Your task to perform on an android device: turn smart compose on in the gmail app Image 0: 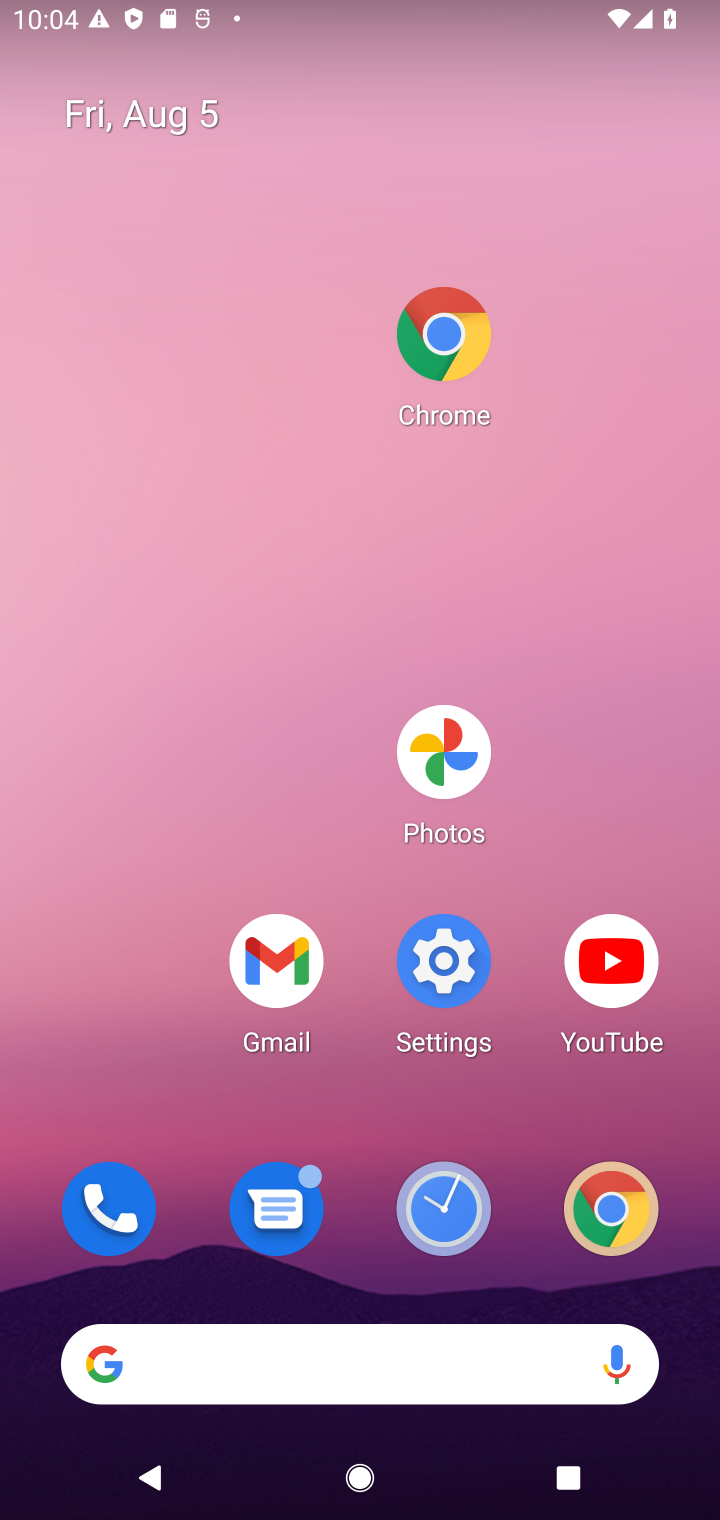
Step 0: click (453, 412)
Your task to perform on an android device: turn smart compose on in the gmail app Image 1: 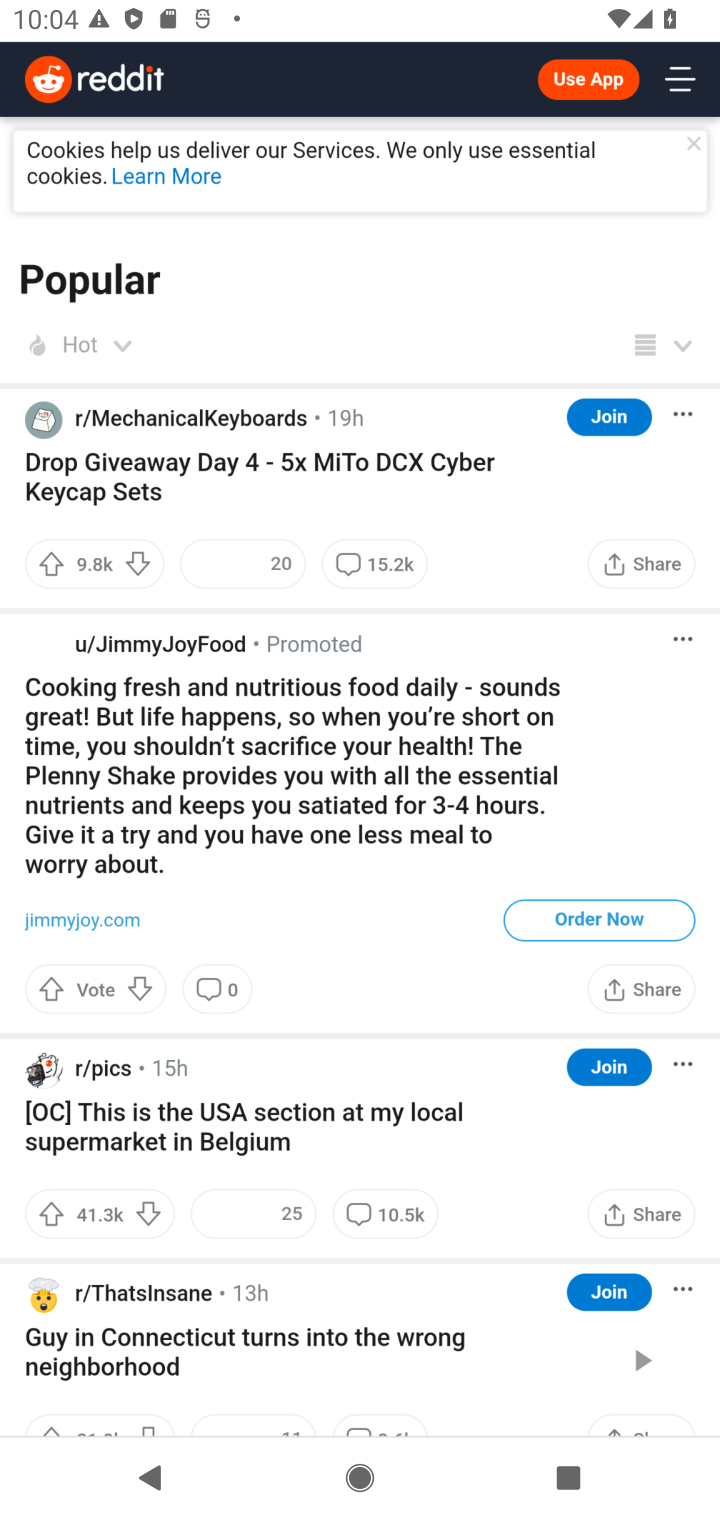
Step 1: drag from (344, 1155) to (428, 226)
Your task to perform on an android device: turn smart compose on in the gmail app Image 2: 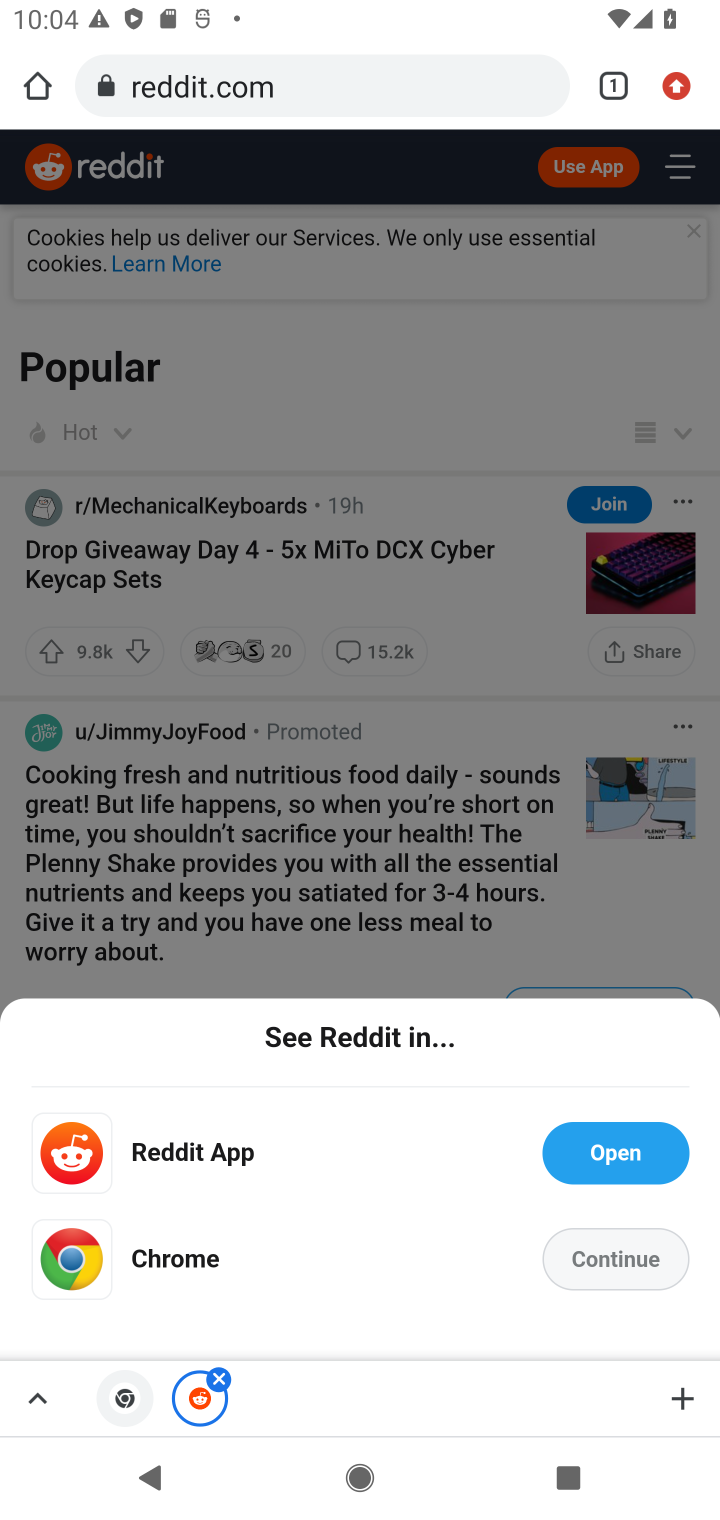
Step 2: drag from (433, 1244) to (486, 501)
Your task to perform on an android device: turn smart compose on in the gmail app Image 3: 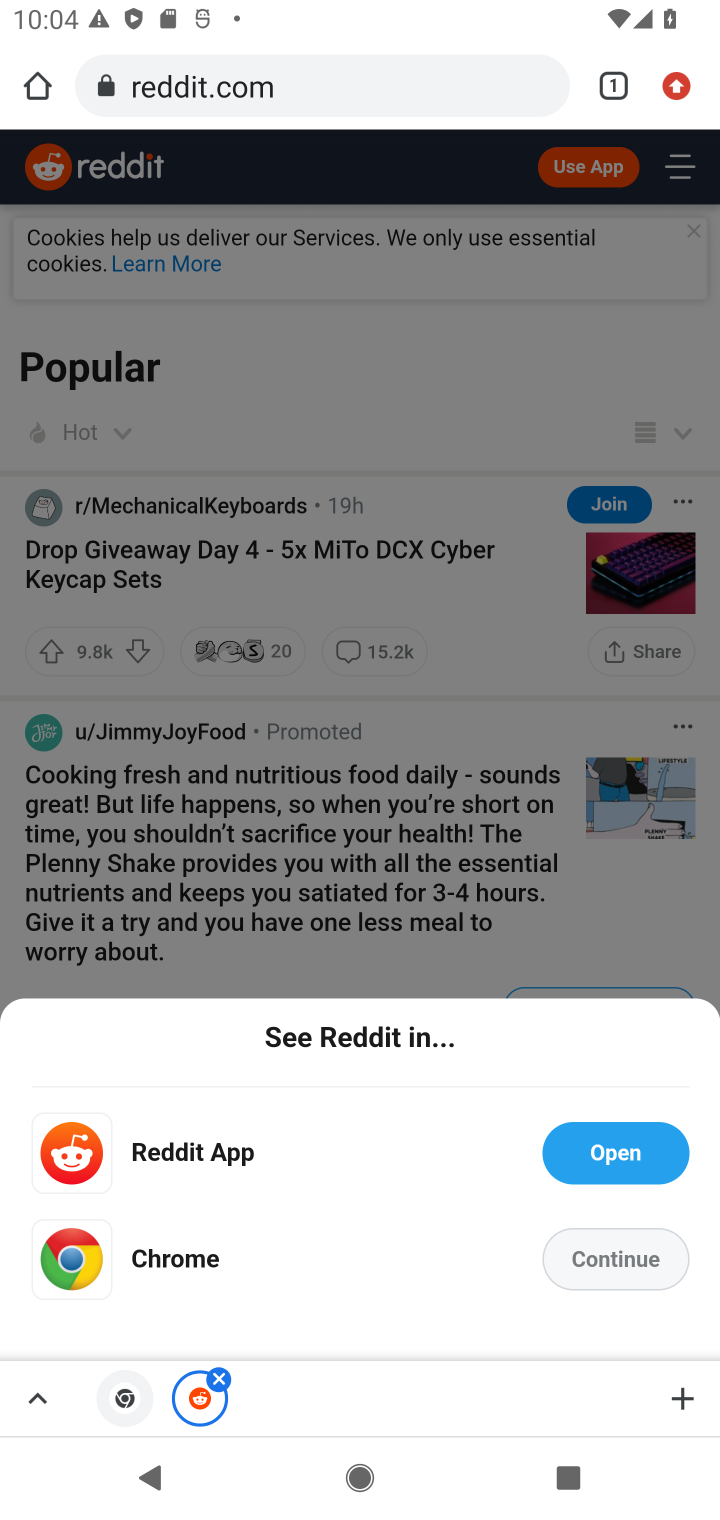
Step 3: press home button
Your task to perform on an android device: turn smart compose on in the gmail app Image 4: 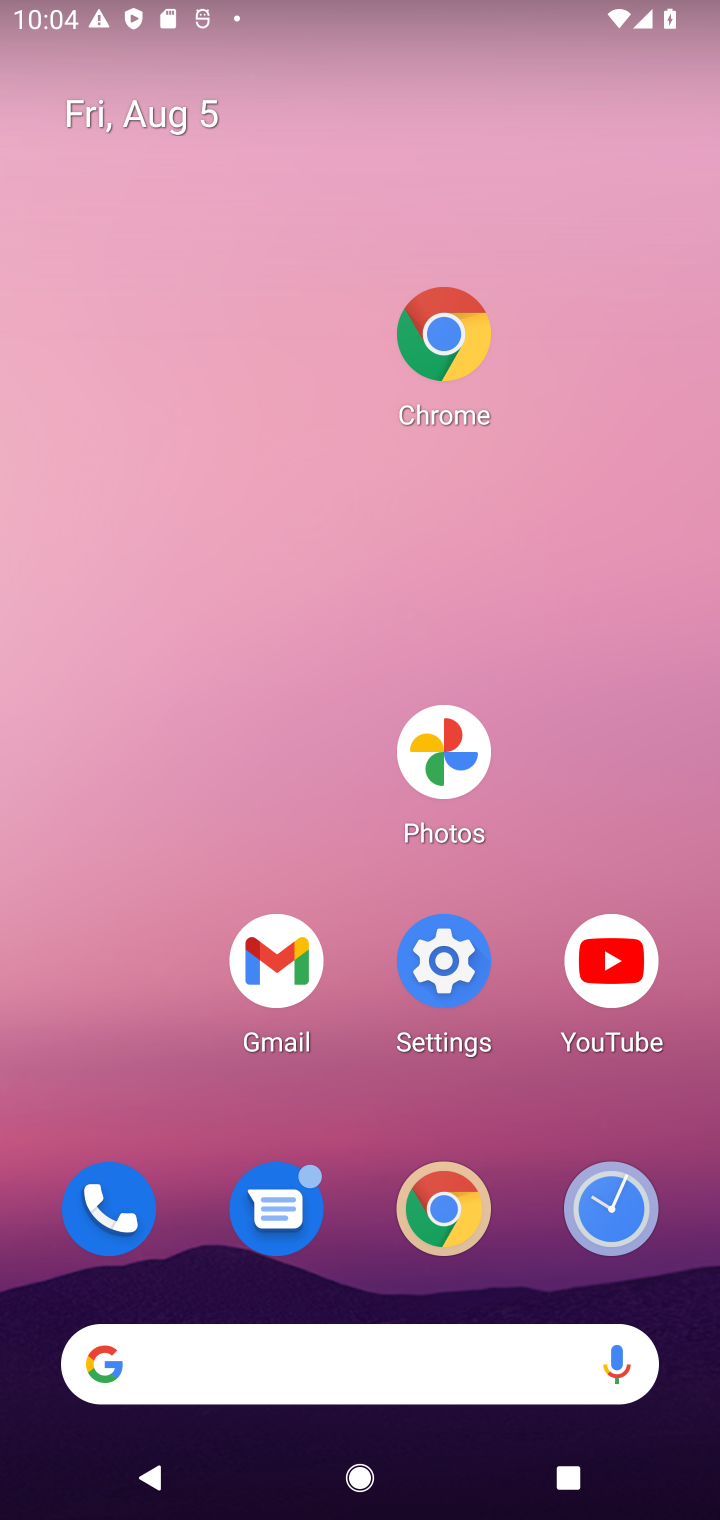
Step 4: drag from (435, 973) to (495, 215)
Your task to perform on an android device: turn smart compose on in the gmail app Image 5: 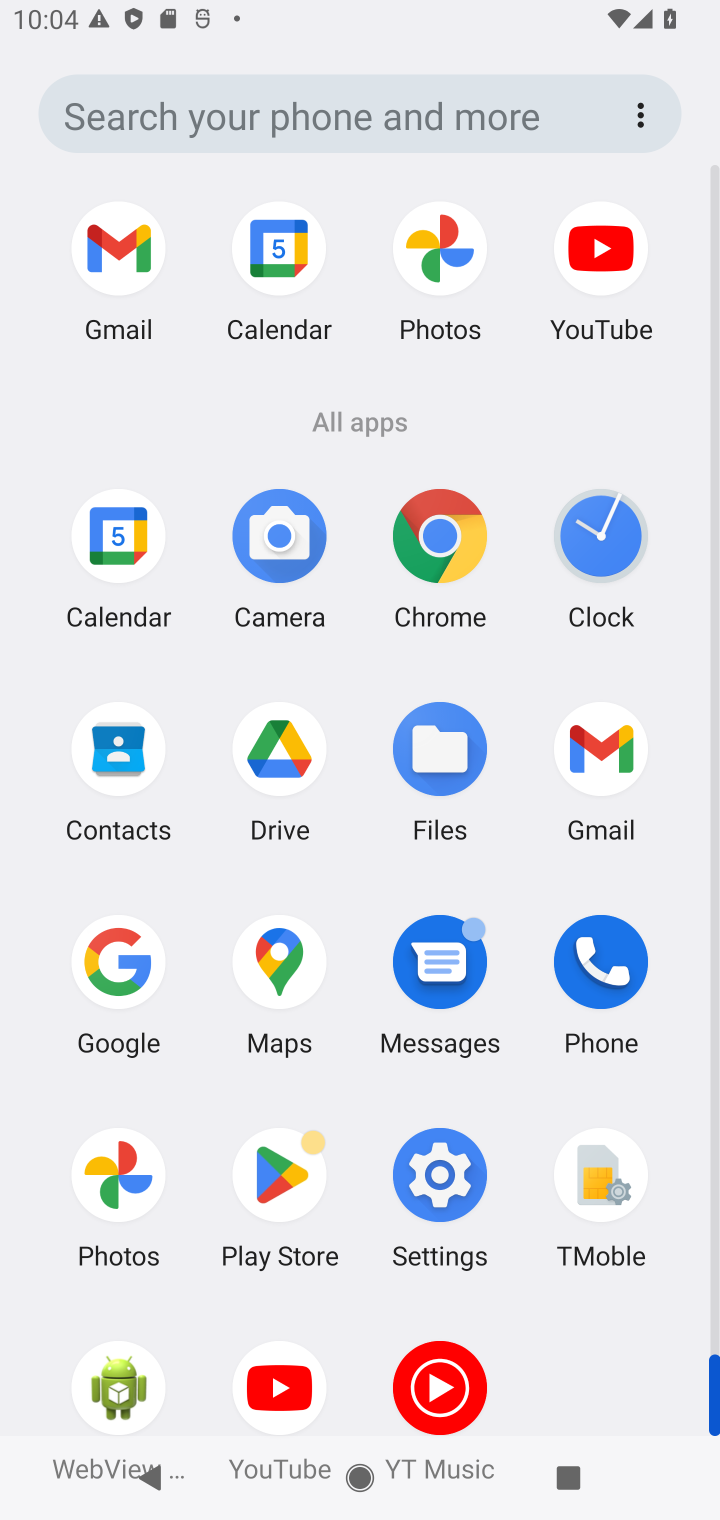
Step 5: click (598, 739)
Your task to perform on an android device: turn smart compose on in the gmail app Image 6: 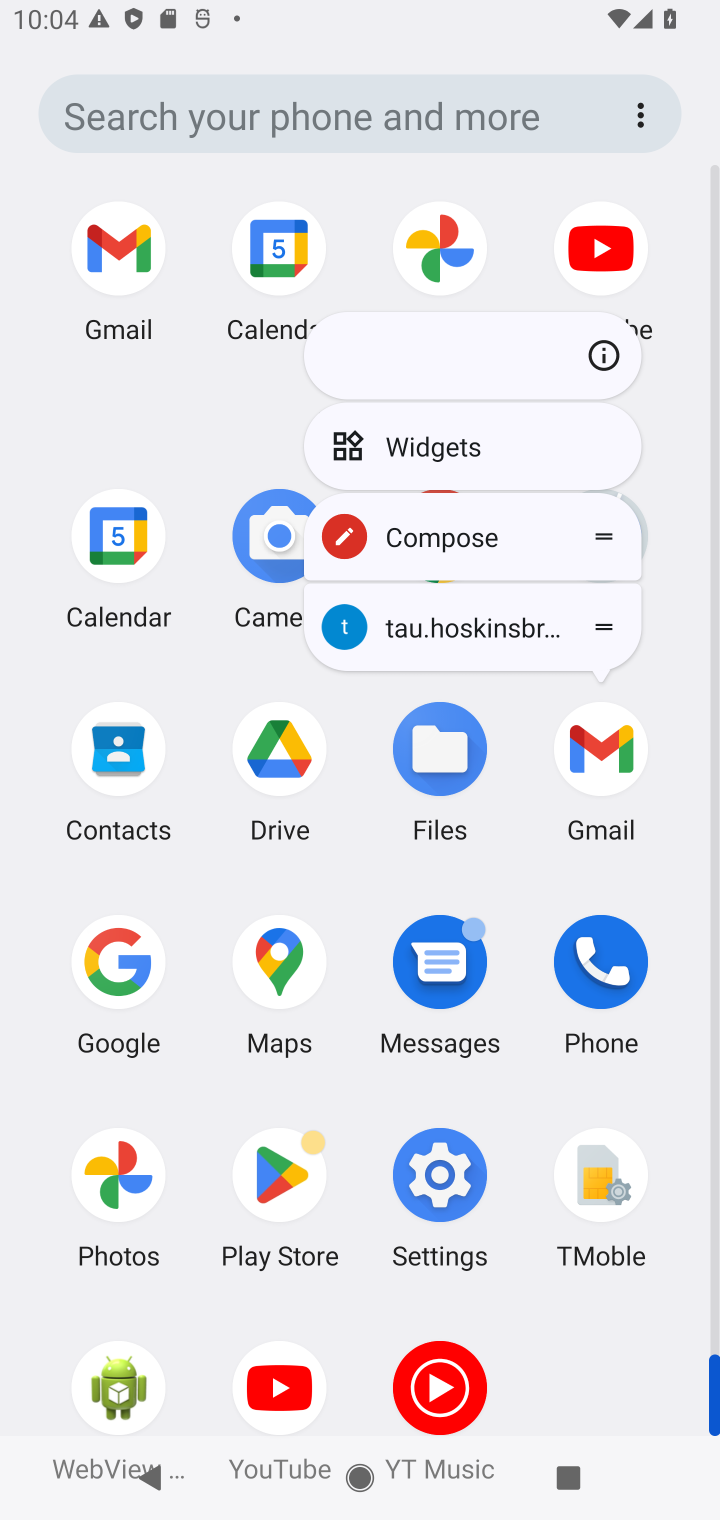
Step 6: click (606, 349)
Your task to perform on an android device: turn smart compose on in the gmail app Image 7: 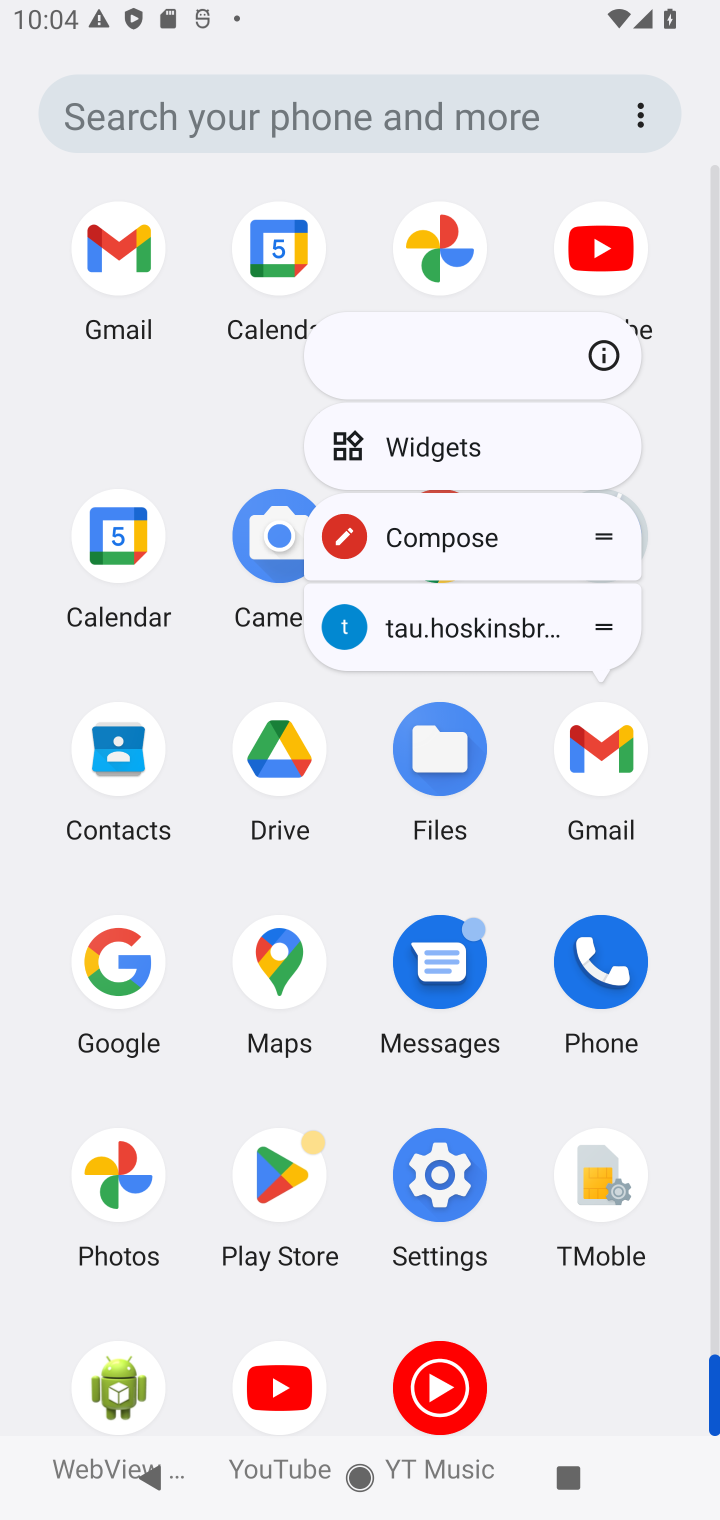
Step 7: click (601, 349)
Your task to perform on an android device: turn smart compose on in the gmail app Image 8: 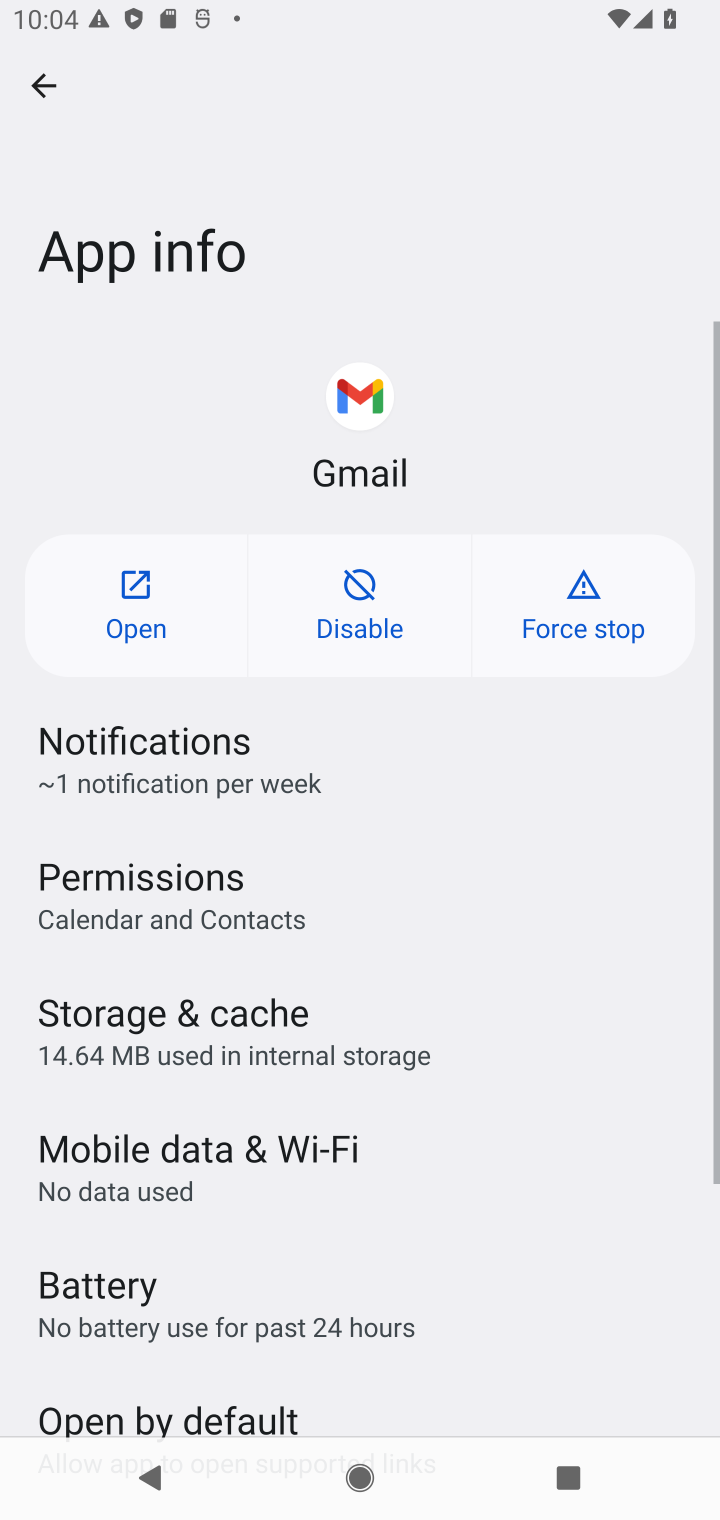
Step 8: click (114, 615)
Your task to perform on an android device: turn smart compose on in the gmail app Image 9: 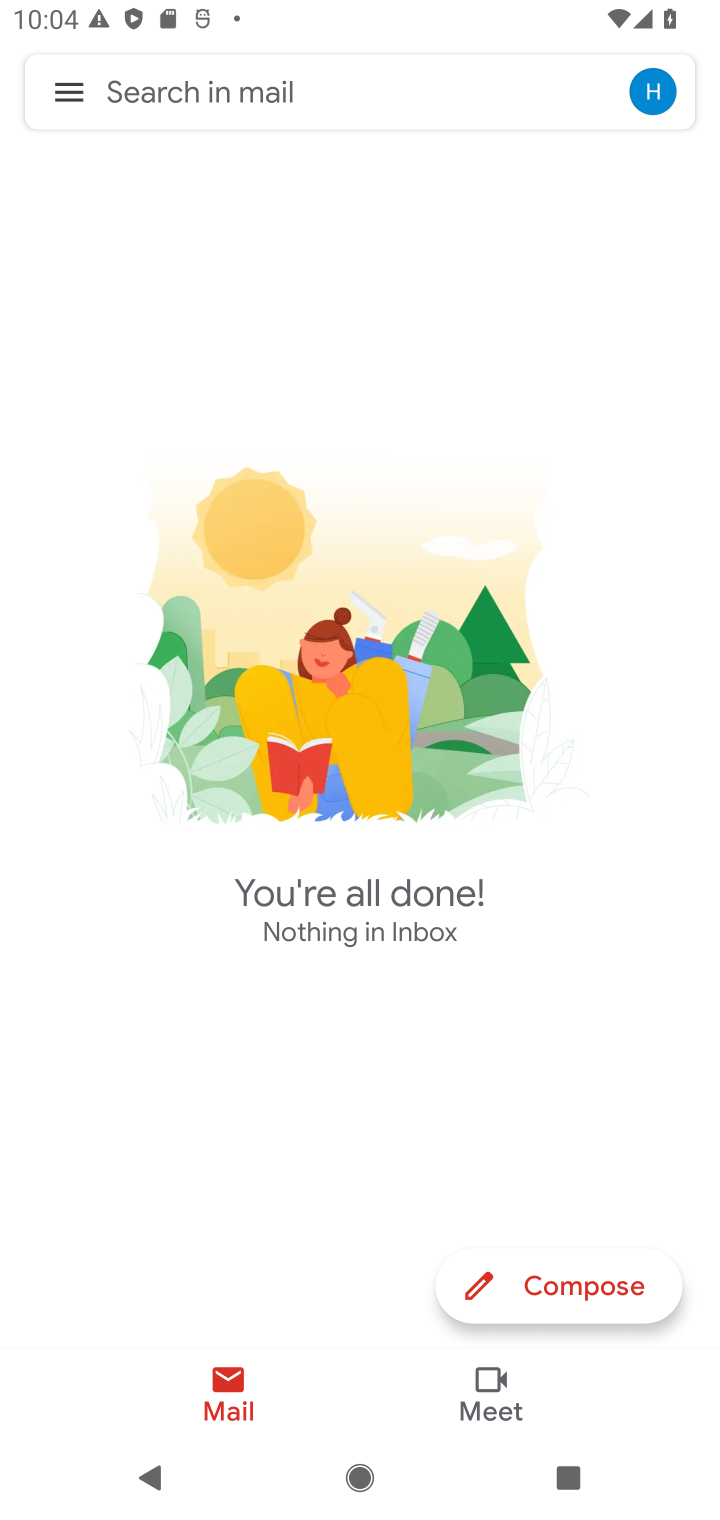
Step 9: click (44, 72)
Your task to perform on an android device: turn smart compose on in the gmail app Image 10: 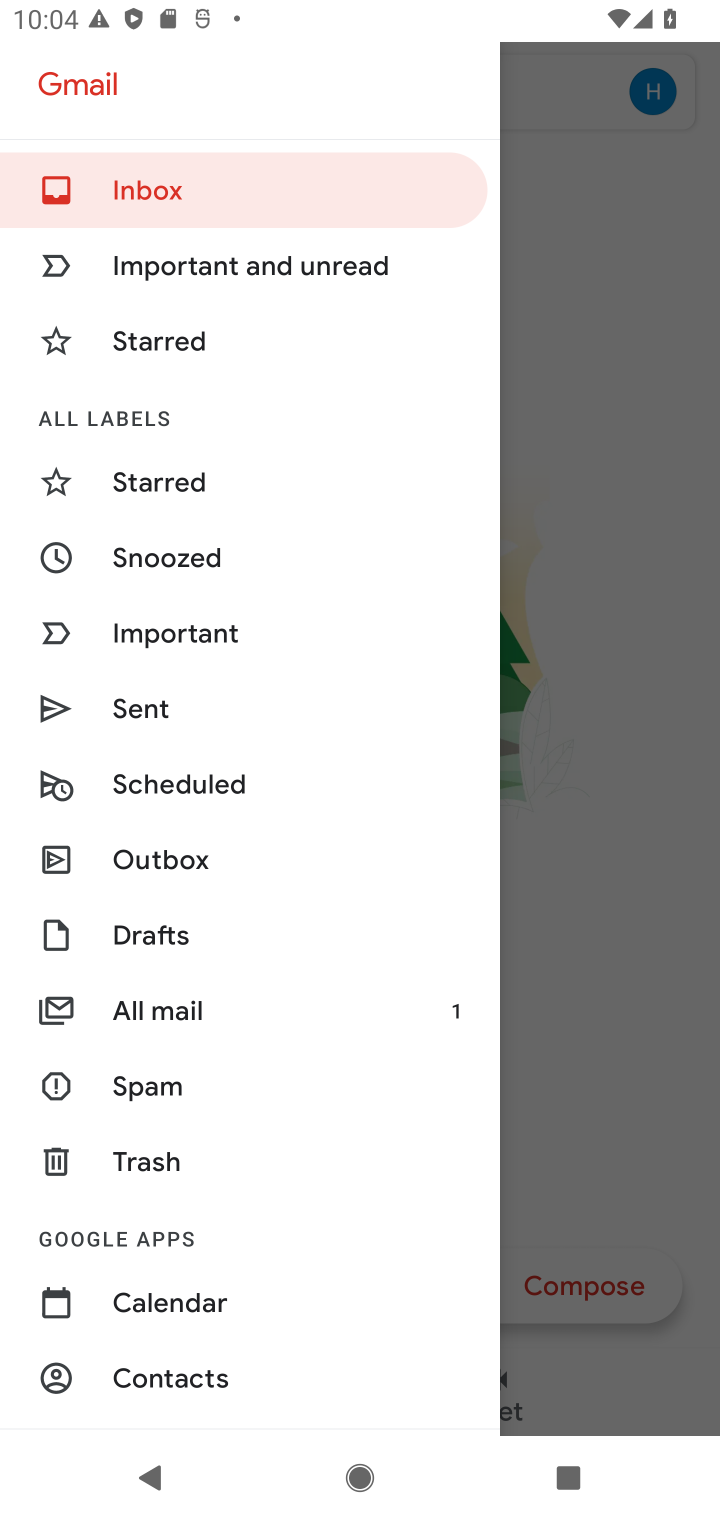
Step 10: drag from (169, 1260) to (239, 344)
Your task to perform on an android device: turn smart compose on in the gmail app Image 11: 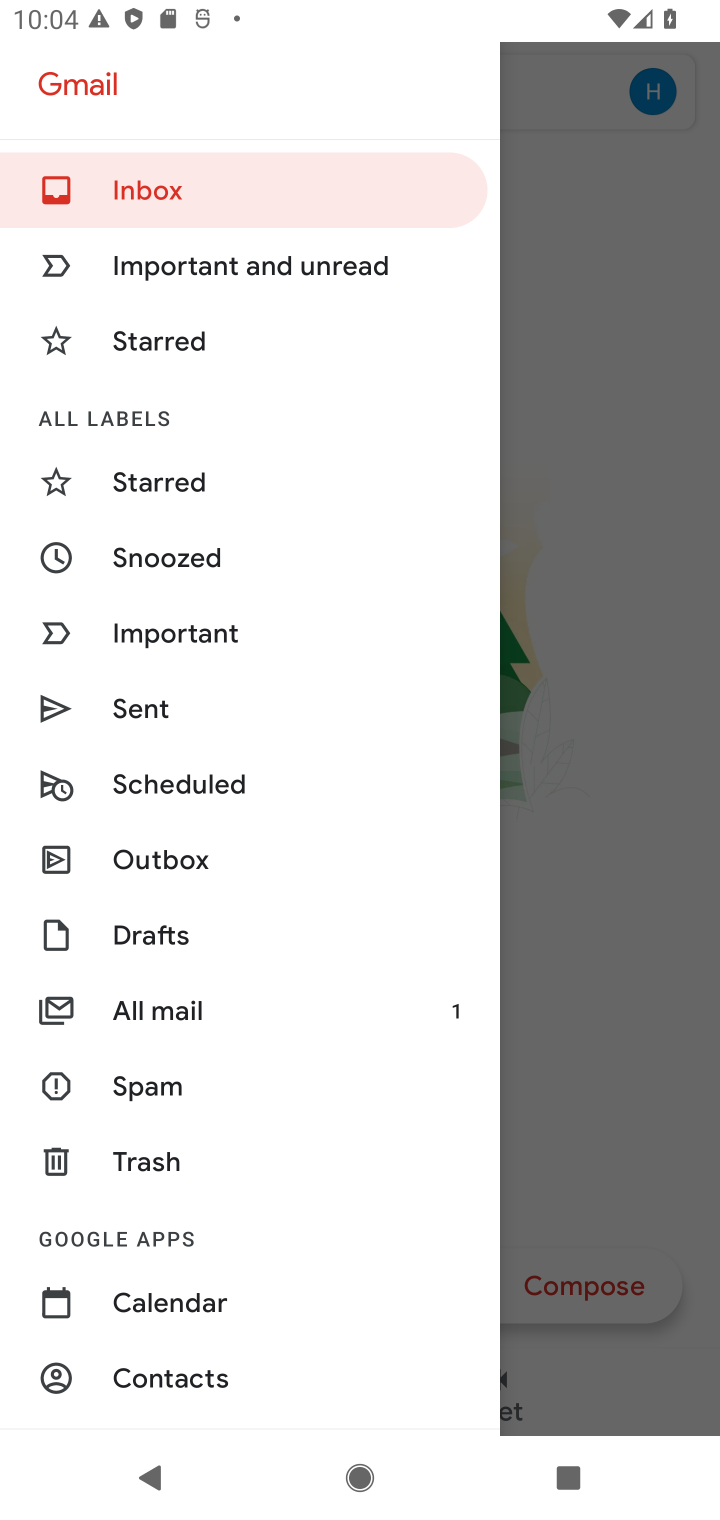
Step 11: drag from (212, 1205) to (295, 626)
Your task to perform on an android device: turn smart compose on in the gmail app Image 12: 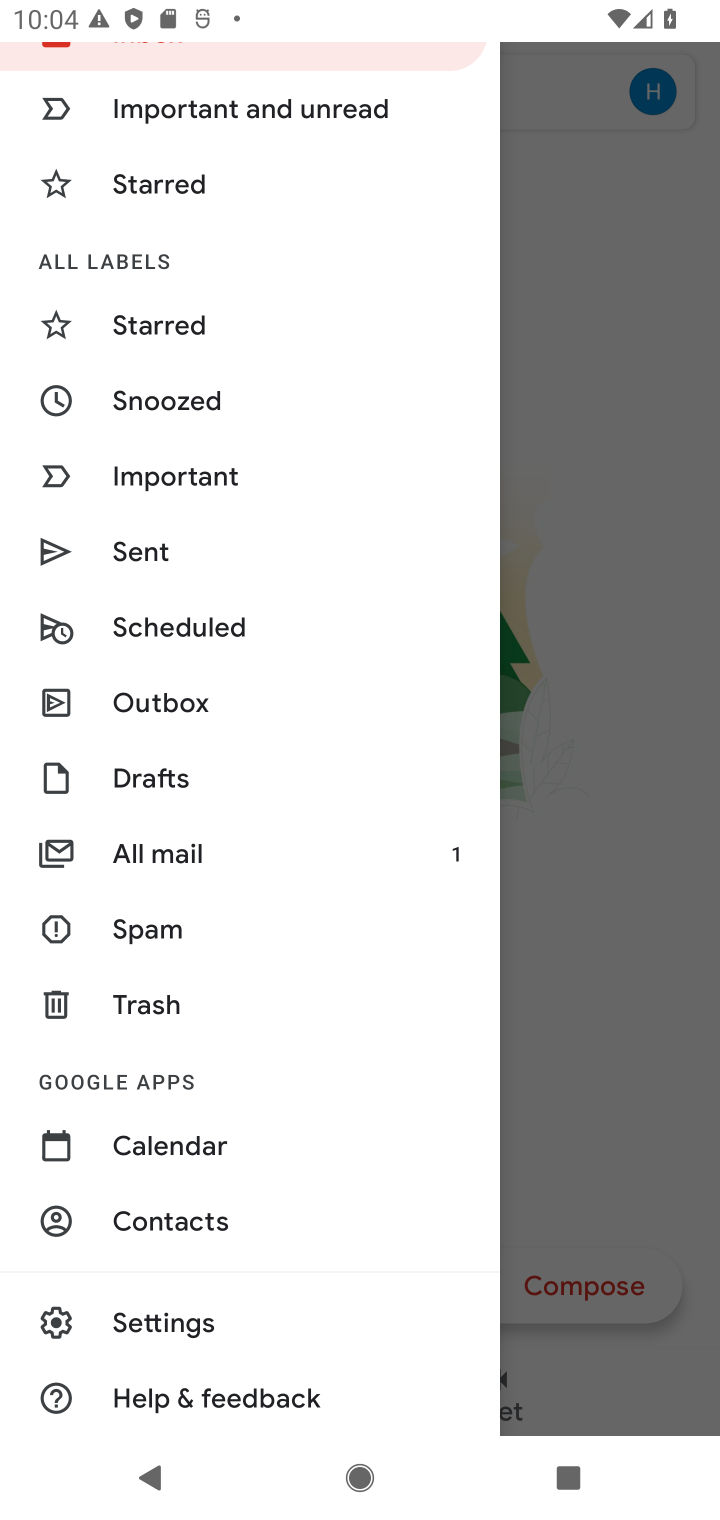
Step 12: click (173, 1319)
Your task to perform on an android device: turn smart compose on in the gmail app Image 13: 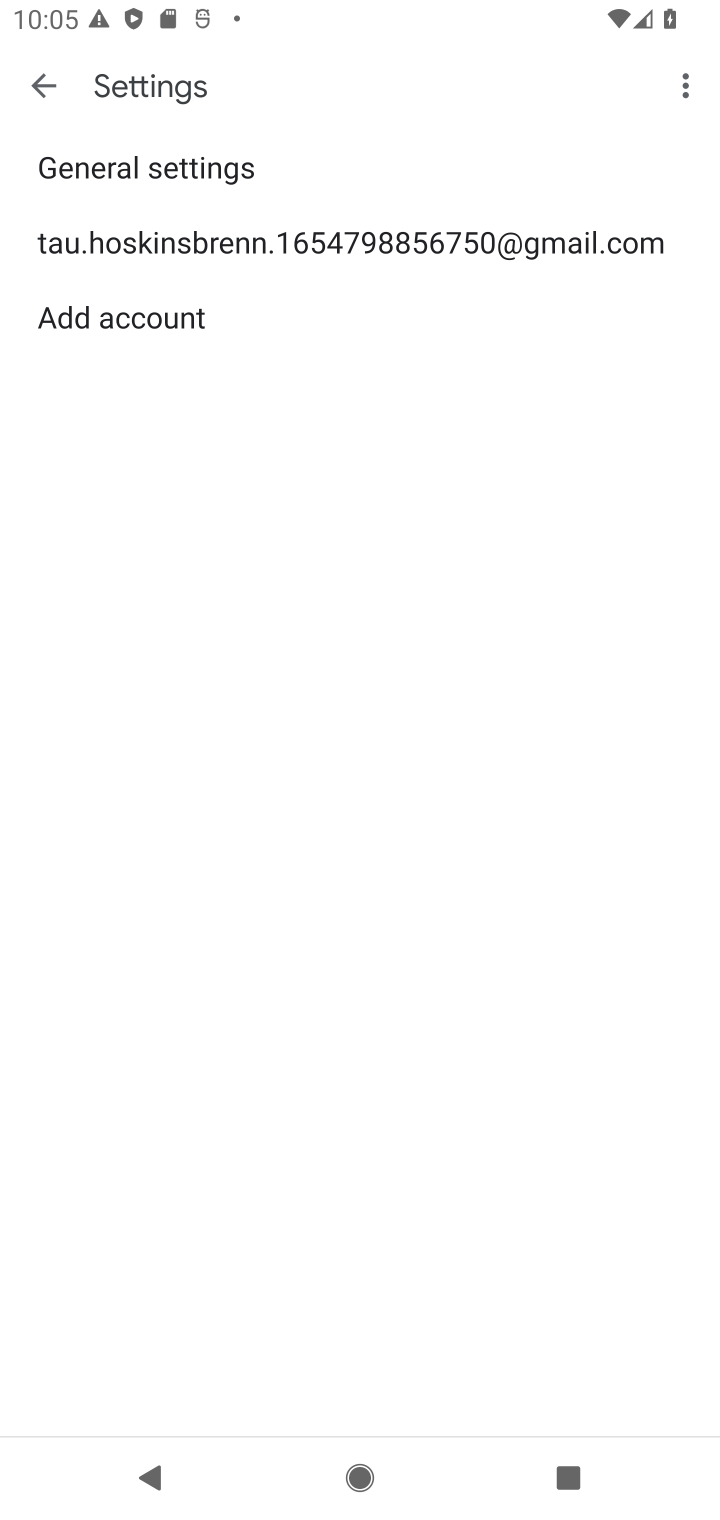
Step 13: click (213, 248)
Your task to perform on an android device: turn smart compose on in the gmail app Image 14: 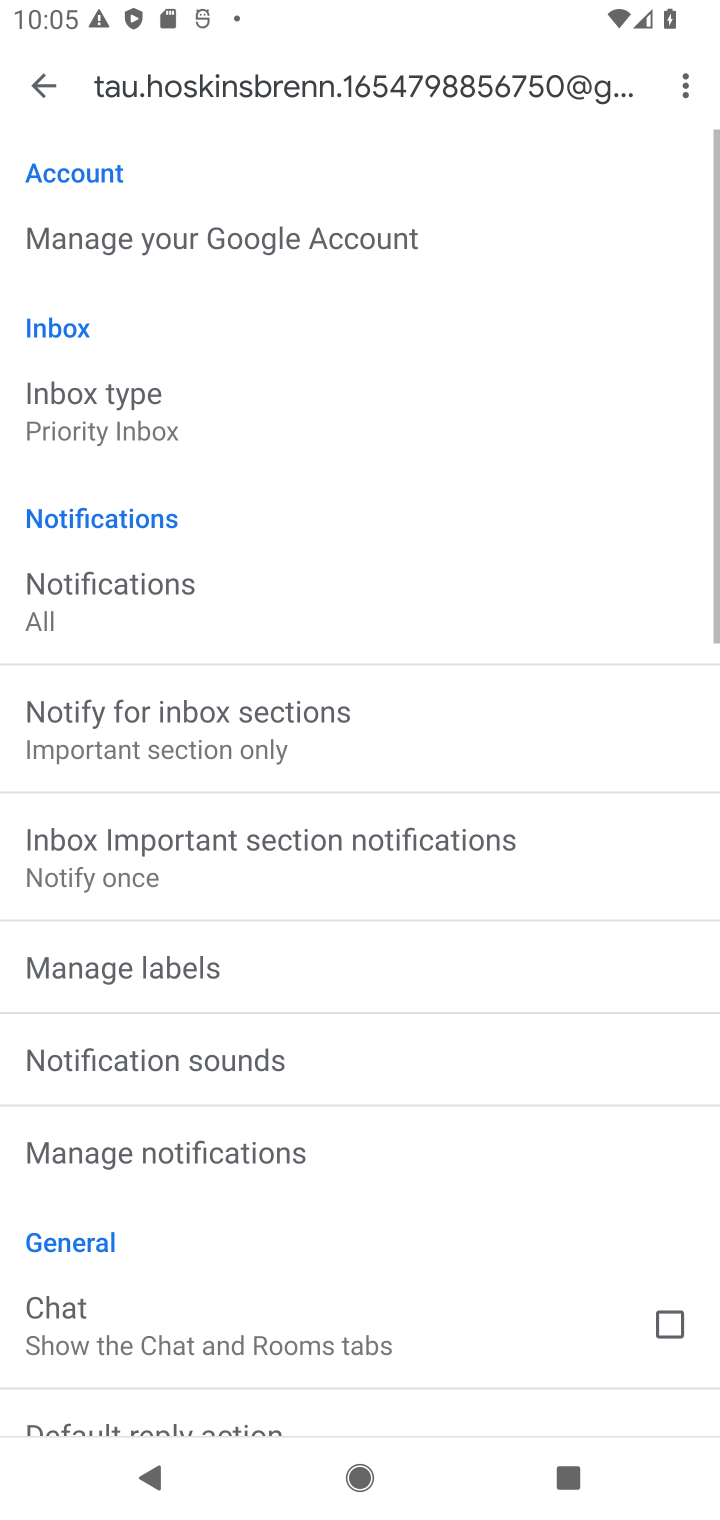
Step 14: task complete